Your task to perform on an android device: remove spam from my inbox in the gmail app Image 0: 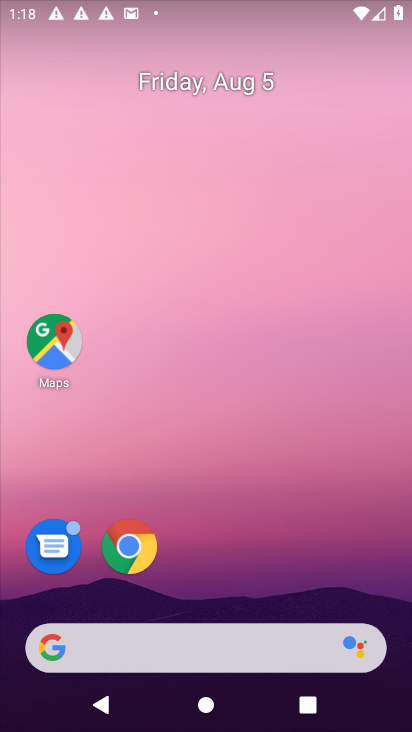
Step 0: click (251, 63)
Your task to perform on an android device: remove spam from my inbox in the gmail app Image 1: 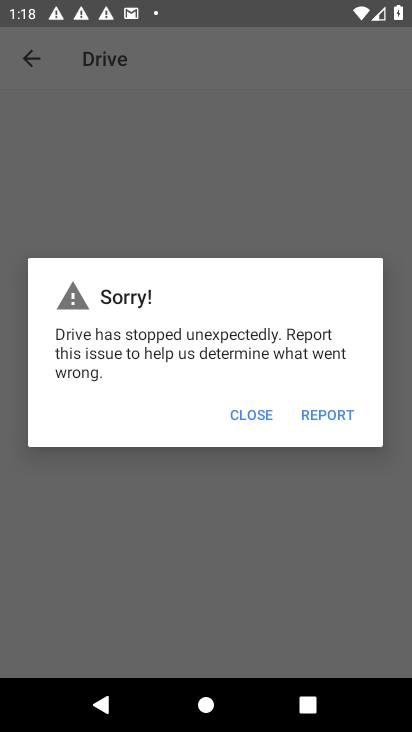
Step 1: press home button
Your task to perform on an android device: remove spam from my inbox in the gmail app Image 2: 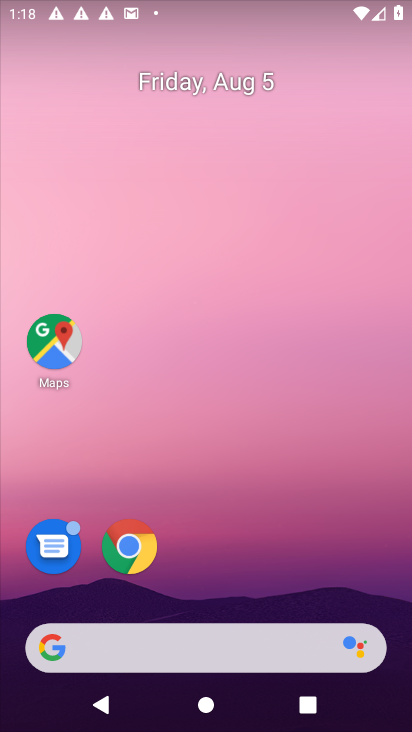
Step 2: drag from (215, 349) to (221, 1)
Your task to perform on an android device: remove spam from my inbox in the gmail app Image 3: 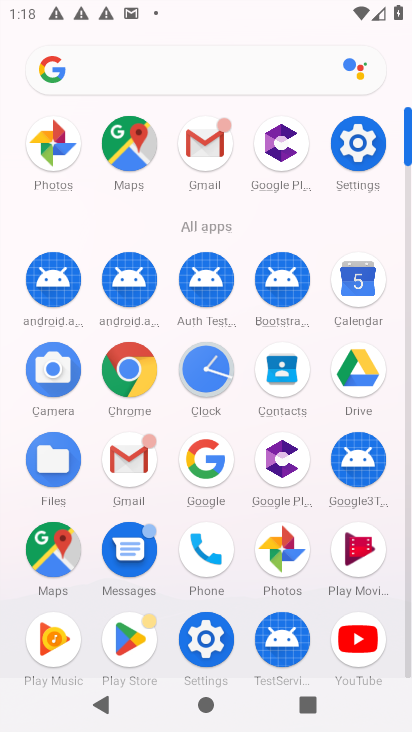
Step 3: click (201, 135)
Your task to perform on an android device: remove spam from my inbox in the gmail app Image 4: 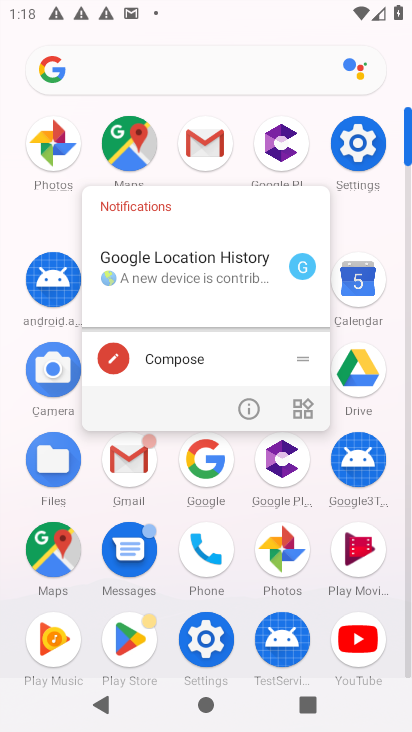
Step 4: click (203, 136)
Your task to perform on an android device: remove spam from my inbox in the gmail app Image 5: 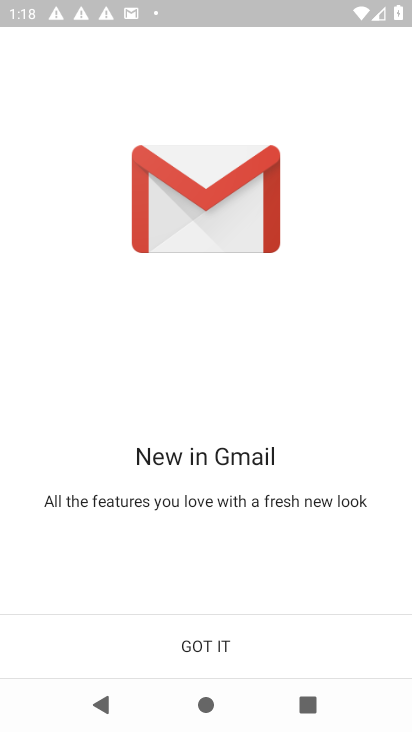
Step 5: click (209, 650)
Your task to perform on an android device: remove spam from my inbox in the gmail app Image 6: 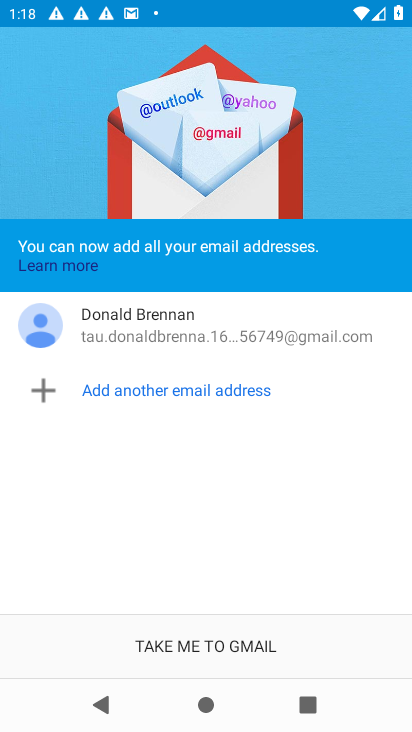
Step 6: click (206, 647)
Your task to perform on an android device: remove spam from my inbox in the gmail app Image 7: 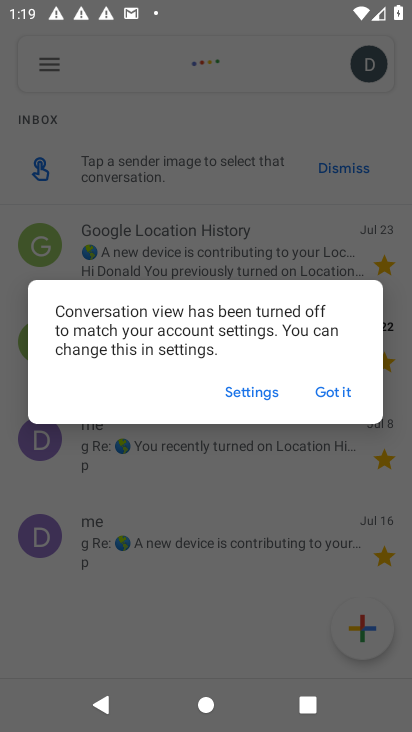
Step 7: click (340, 390)
Your task to perform on an android device: remove spam from my inbox in the gmail app Image 8: 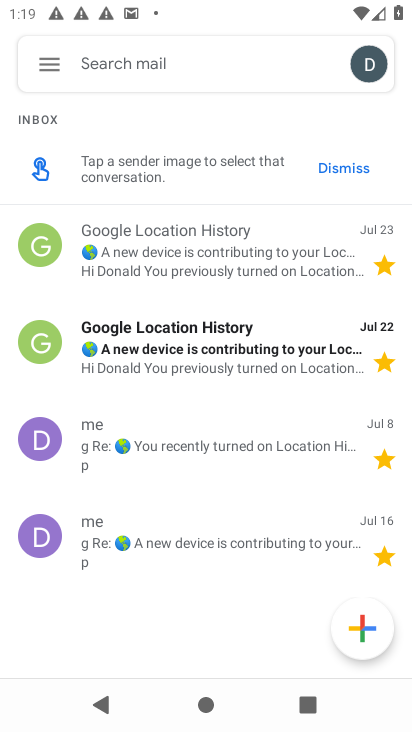
Step 8: click (43, 62)
Your task to perform on an android device: remove spam from my inbox in the gmail app Image 9: 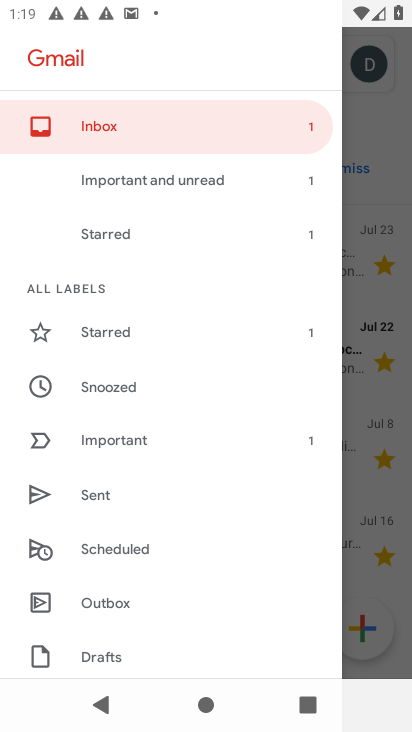
Step 9: drag from (147, 613) to (125, 132)
Your task to perform on an android device: remove spam from my inbox in the gmail app Image 10: 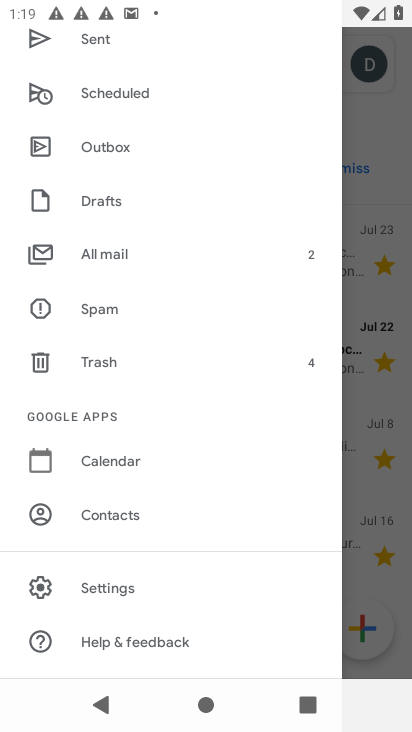
Step 10: click (150, 584)
Your task to perform on an android device: remove spam from my inbox in the gmail app Image 11: 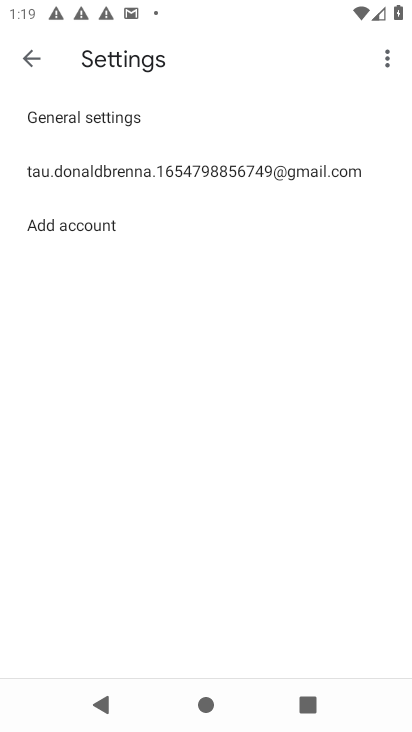
Step 11: click (29, 53)
Your task to perform on an android device: remove spam from my inbox in the gmail app Image 12: 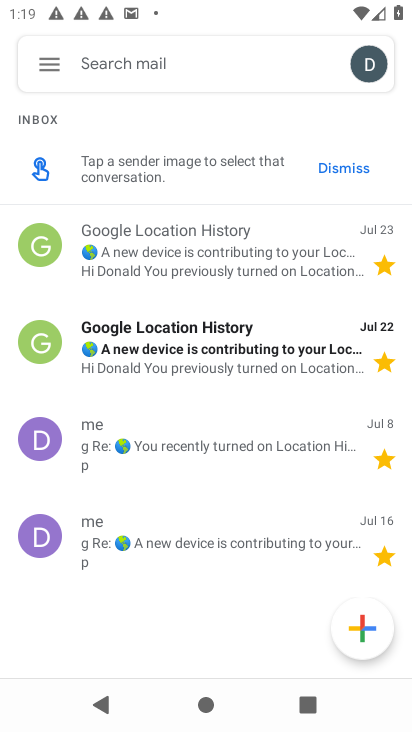
Step 12: click (41, 57)
Your task to perform on an android device: remove spam from my inbox in the gmail app Image 13: 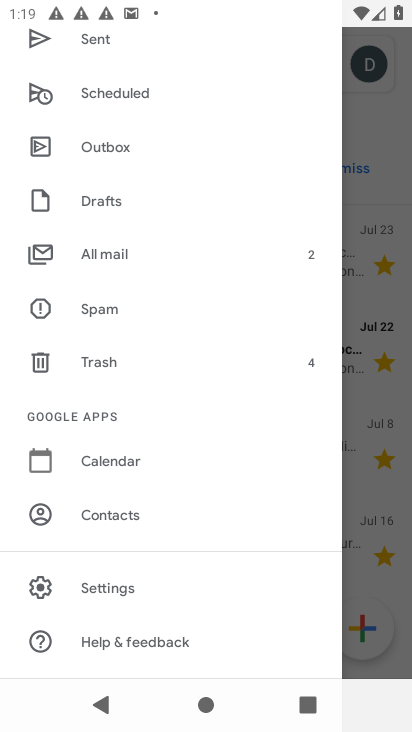
Step 13: click (99, 305)
Your task to perform on an android device: remove spam from my inbox in the gmail app Image 14: 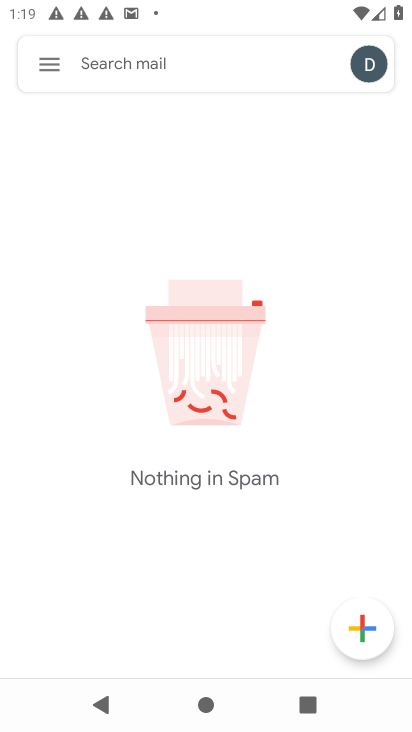
Step 14: task complete